Your task to perform on an android device: Go to settings Image 0: 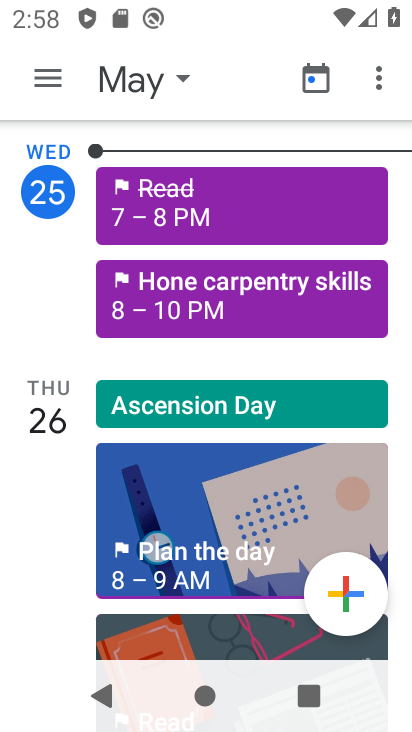
Step 0: press home button
Your task to perform on an android device: Go to settings Image 1: 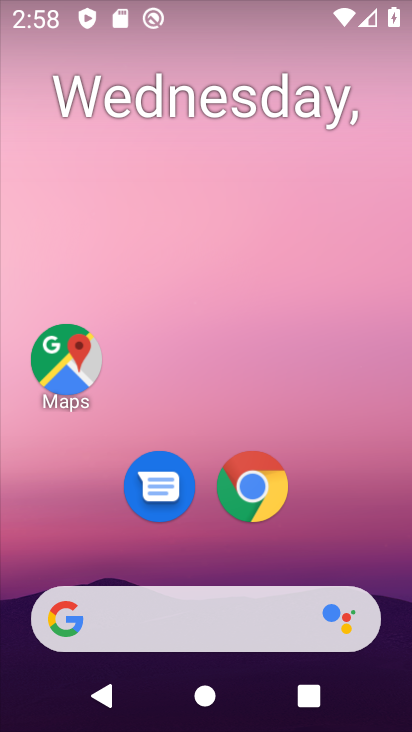
Step 1: drag from (229, 587) to (214, 156)
Your task to perform on an android device: Go to settings Image 2: 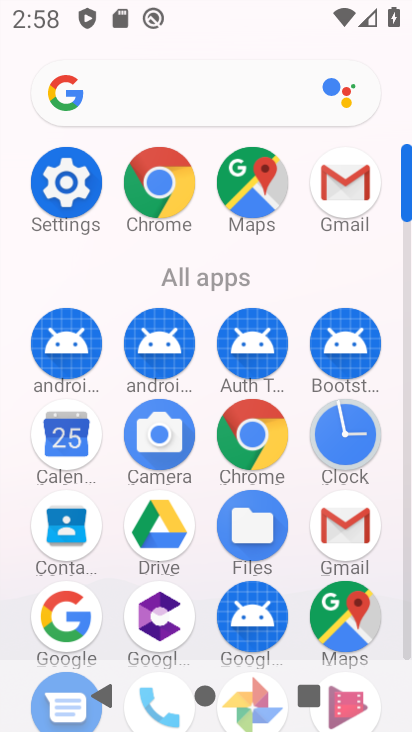
Step 2: click (58, 186)
Your task to perform on an android device: Go to settings Image 3: 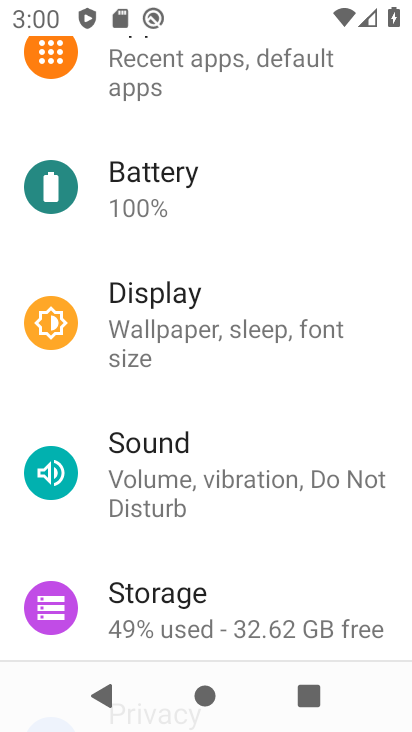
Step 3: task complete